Your task to perform on an android device: What is the recent news? Image 0: 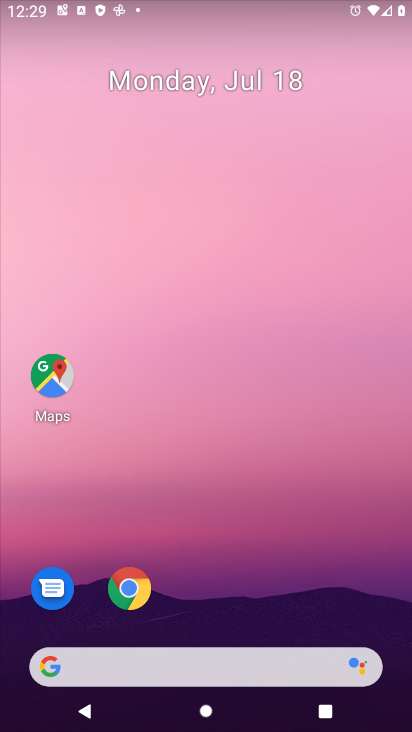
Step 0: drag from (232, 655) to (230, 229)
Your task to perform on an android device: What is the recent news? Image 1: 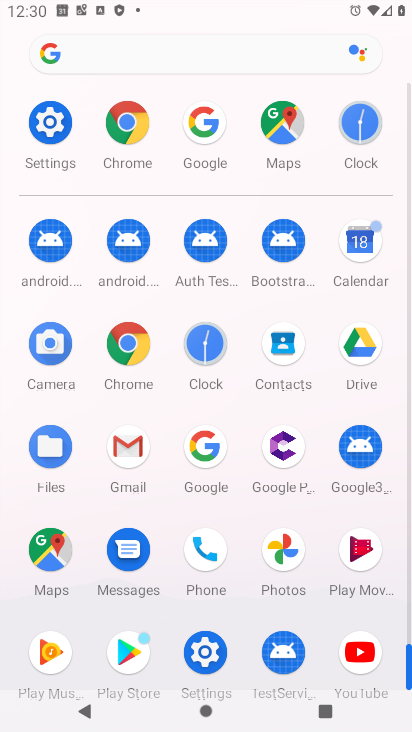
Step 1: click (206, 458)
Your task to perform on an android device: What is the recent news? Image 2: 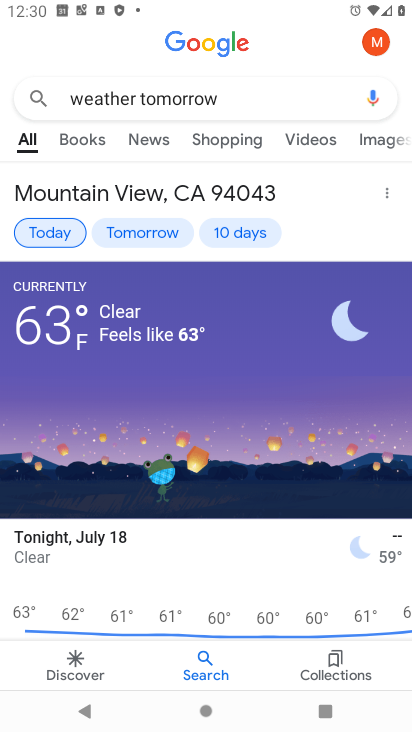
Step 2: click (269, 99)
Your task to perform on an android device: What is the recent news? Image 3: 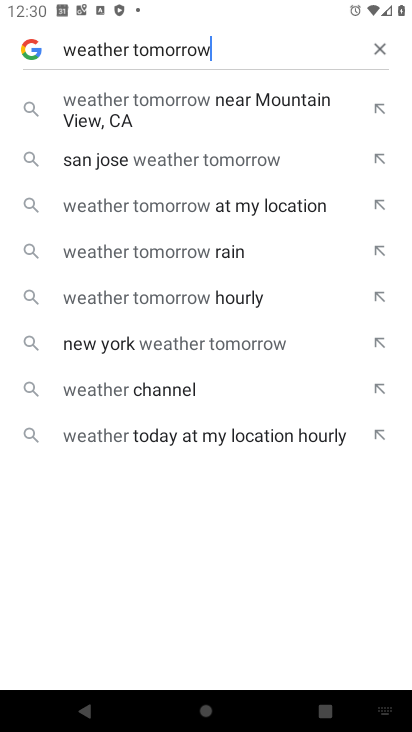
Step 3: click (379, 56)
Your task to perform on an android device: What is the recent news? Image 4: 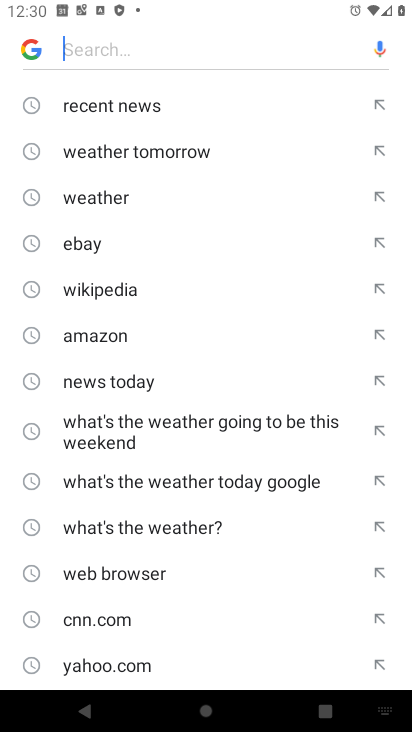
Step 4: click (220, 101)
Your task to perform on an android device: What is the recent news? Image 5: 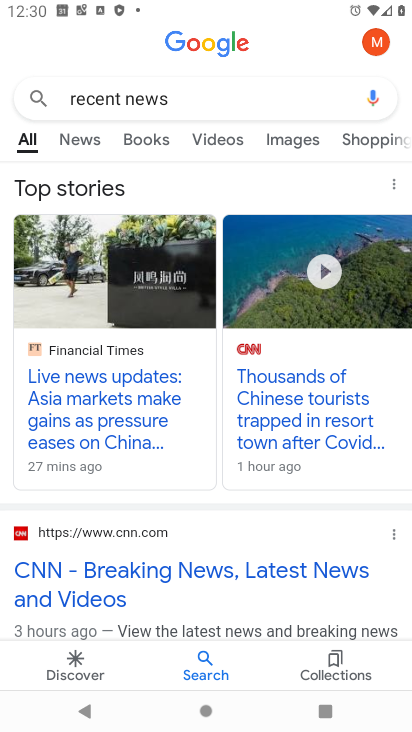
Step 5: click (75, 143)
Your task to perform on an android device: What is the recent news? Image 6: 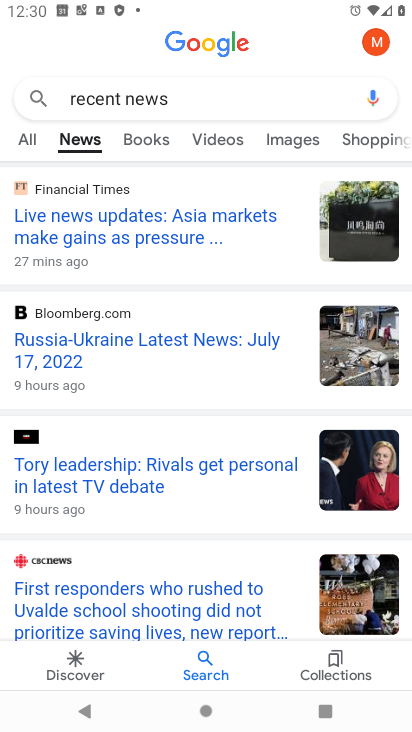
Step 6: task complete